Your task to perform on an android device: Clear the cart on bestbuy.com. Search for "usb-b" on bestbuy.com, select the first entry, add it to the cart, then select checkout. Image 0: 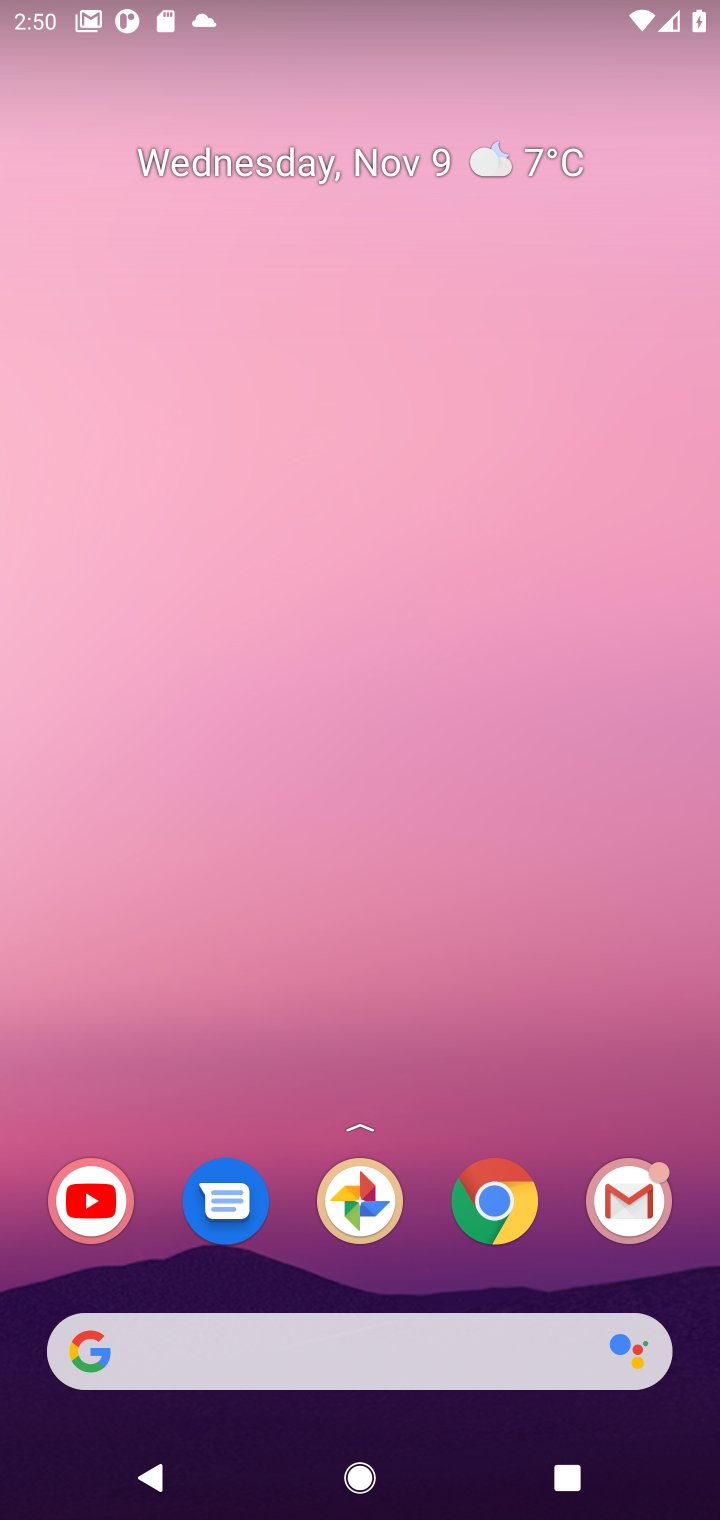
Step 0: press home button
Your task to perform on an android device: Clear the cart on bestbuy.com. Search for "usb-b" on bestbuy.com, select the first entry, add it to the cart, then select checkout. Image 1: 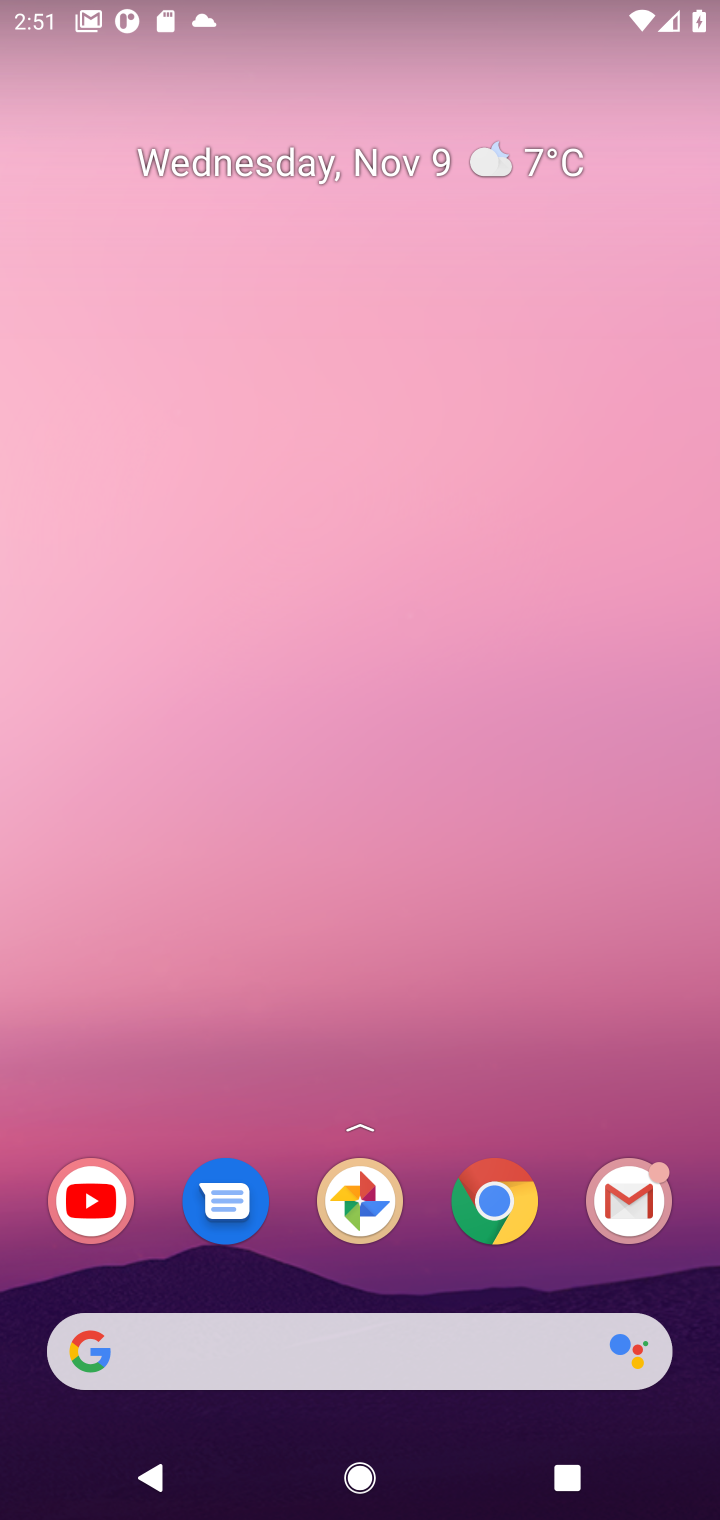
Step 1: click (322, 1327)
Your task to perform on an android device: Clear the cart on bestbuy.com. Search for "usb-b" on bestbuy.com, select the first entry, add it to the cart, then select checkout. Image 2: 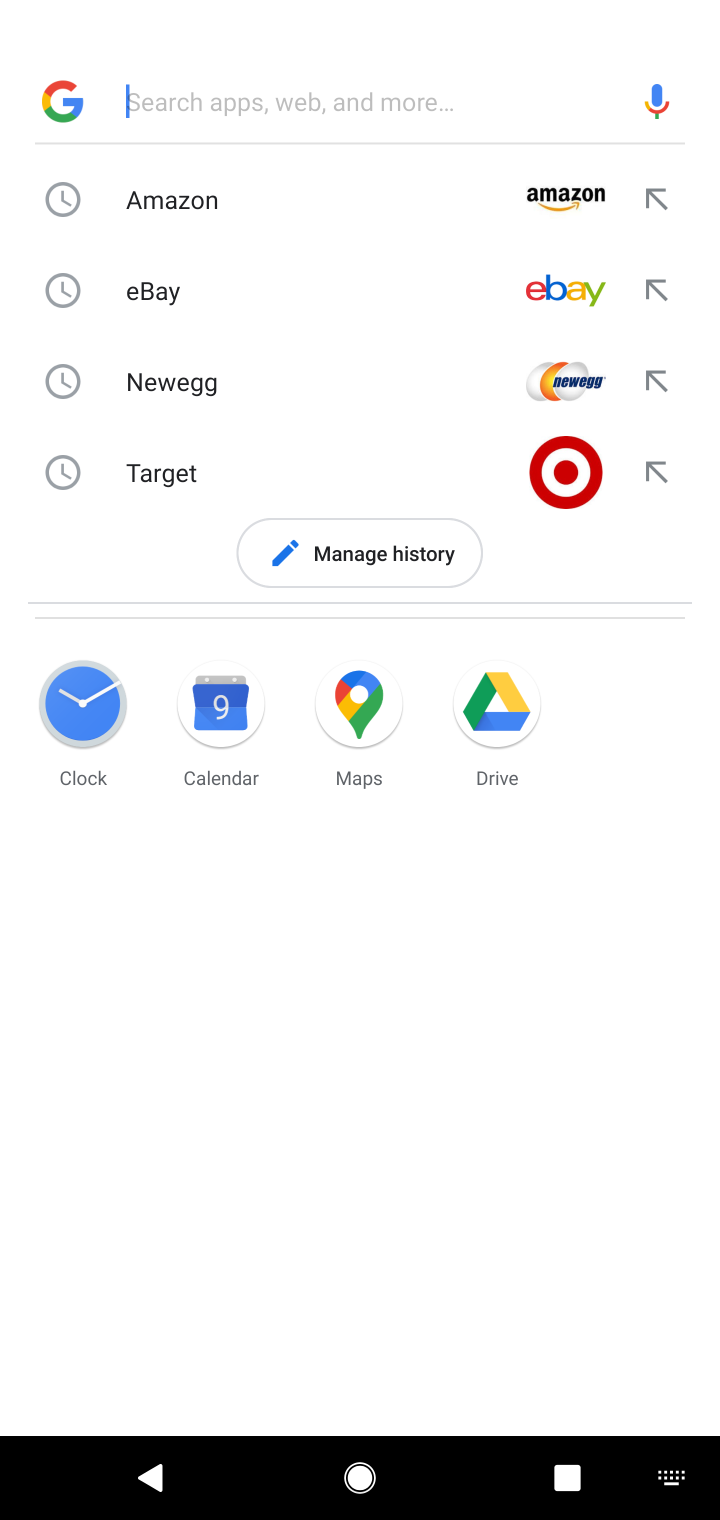
Step 2: type "bestbuy.com"
Your task to perform on an android device: Clear the cart on bestbuy.com. Search for "usb-b" on bestbuy.com, select the first entry, add it to the cart, then select checkout. Image 3: 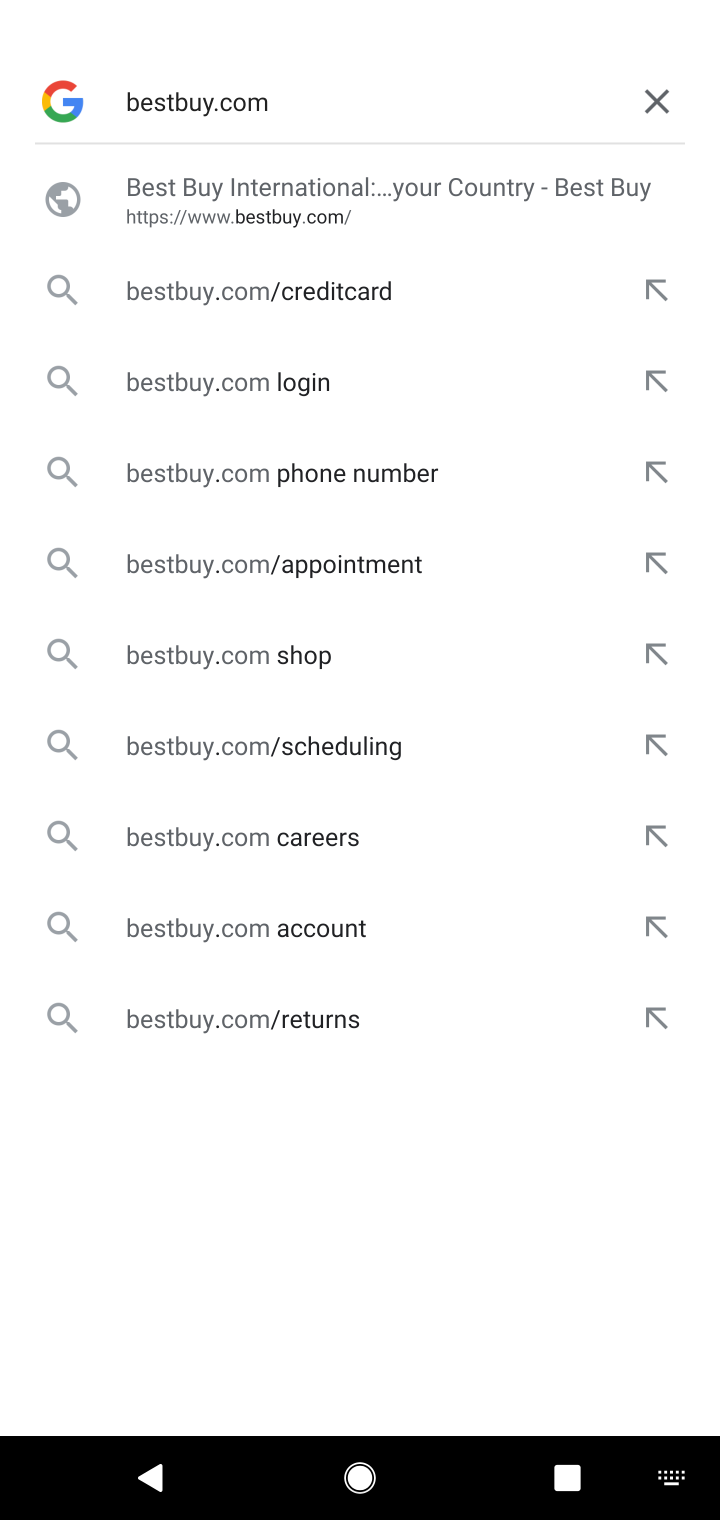
Step 3: click (295, 199)
Your task to perform on an android device: Clear the cart on bestbuy.com. Search for "usb-b" on bestbuy.com, select the first entry, add it to the cart, then select checkout. Image 4: 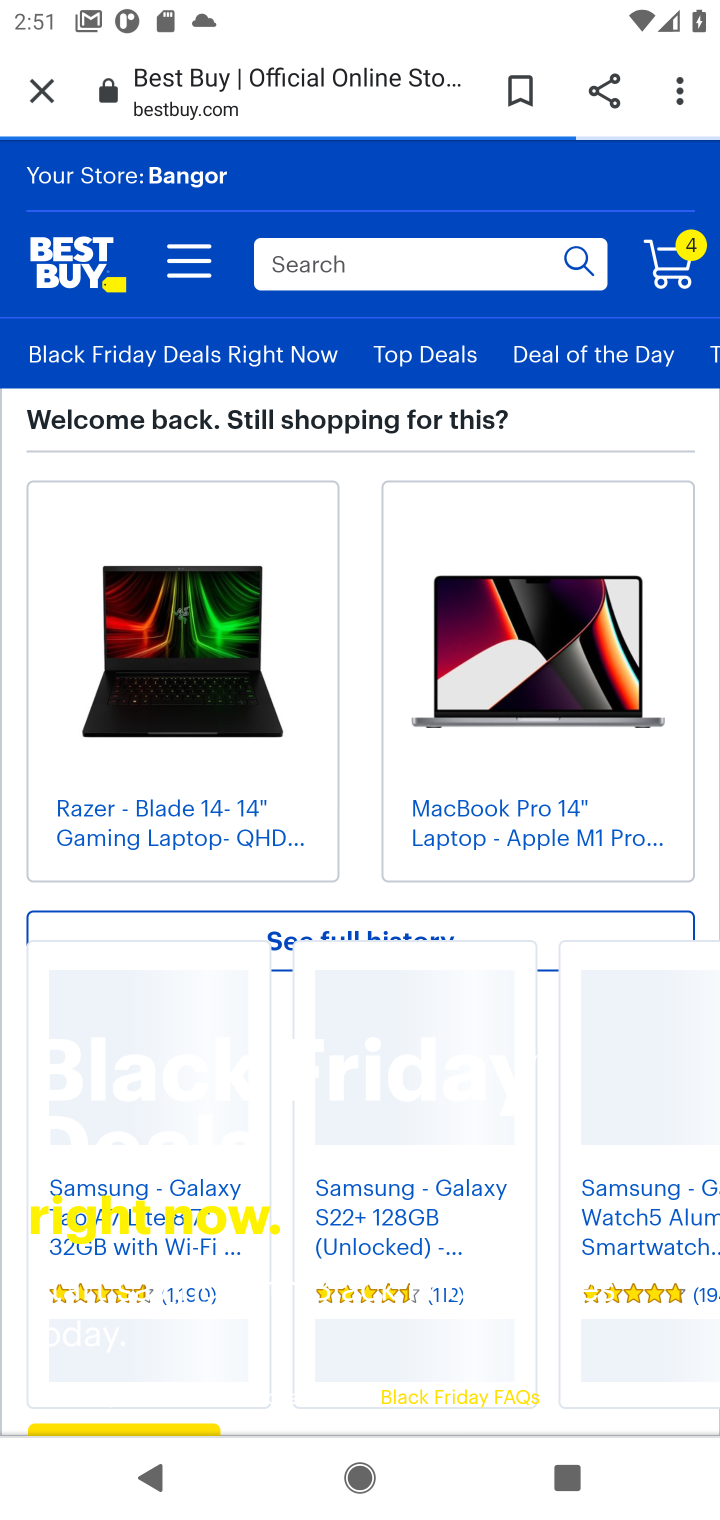
Step 4: click (351, 250)
Your task to perform on an android device: Clear the cart on bestbuy.com. Search for "usb-b" on bestbuy.com, select the first entry, add it to the cart, then select checkout. Image 5: 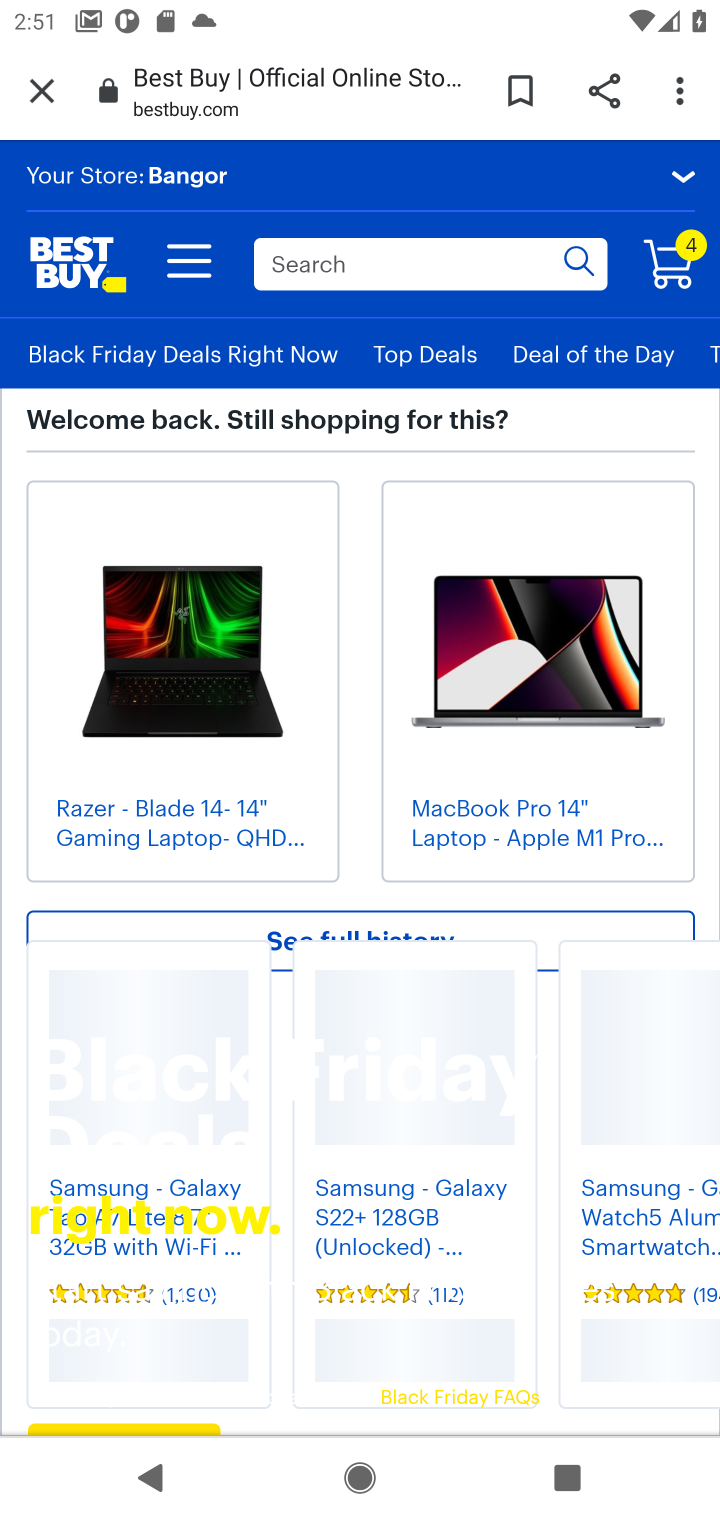
Step 5: click (336, 241)
Your task to perform on an android device: Clear the cart on bestbuy.com. Search for "usb-b" on bestbuy.com, select the first entry, add it to the cart, then select checkout. Image 6: 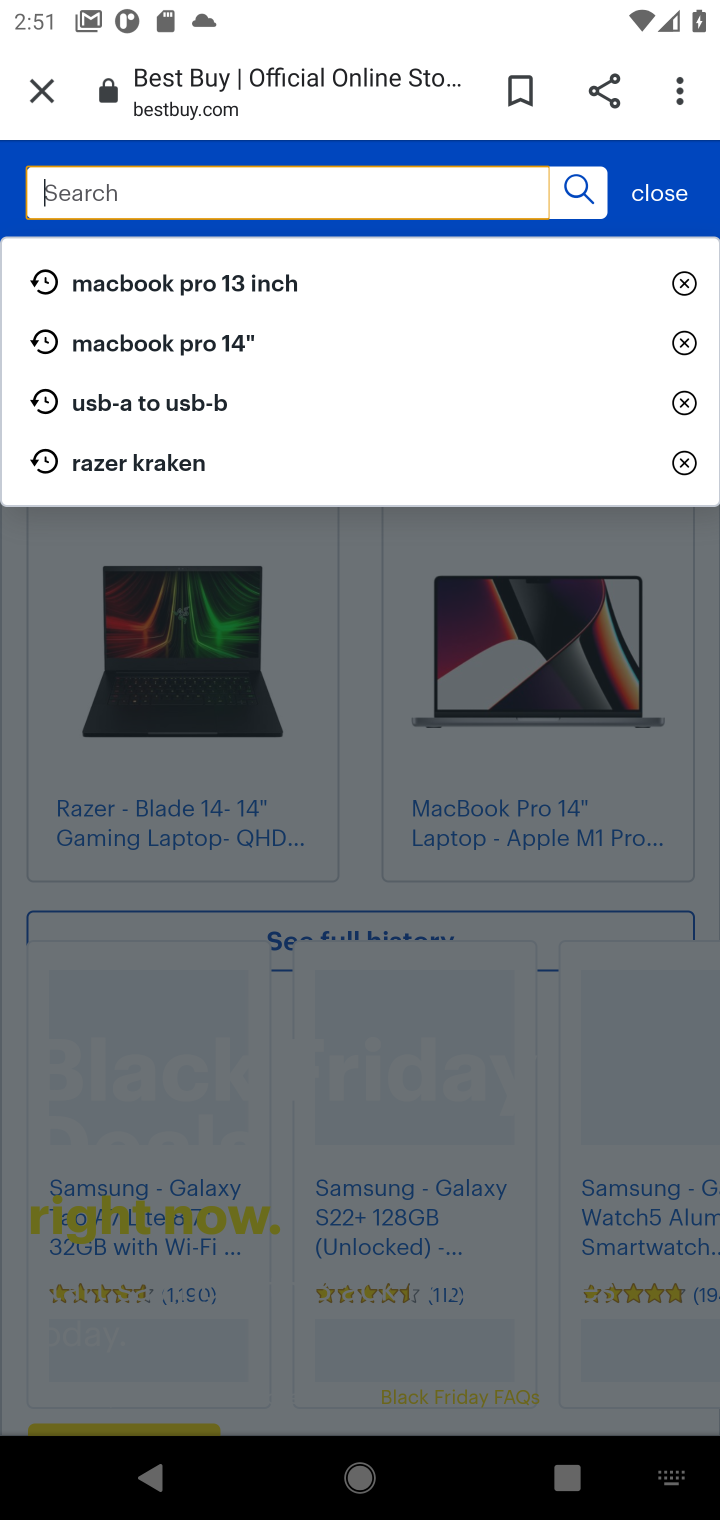
Step 6: type "usb-b"
Your task to perform on an android device: Clear the cart on bestbuy.com. Search for "usb-b" on bestbuy.com, select the first entry, add it to the cart, then select checkout. Image 7: 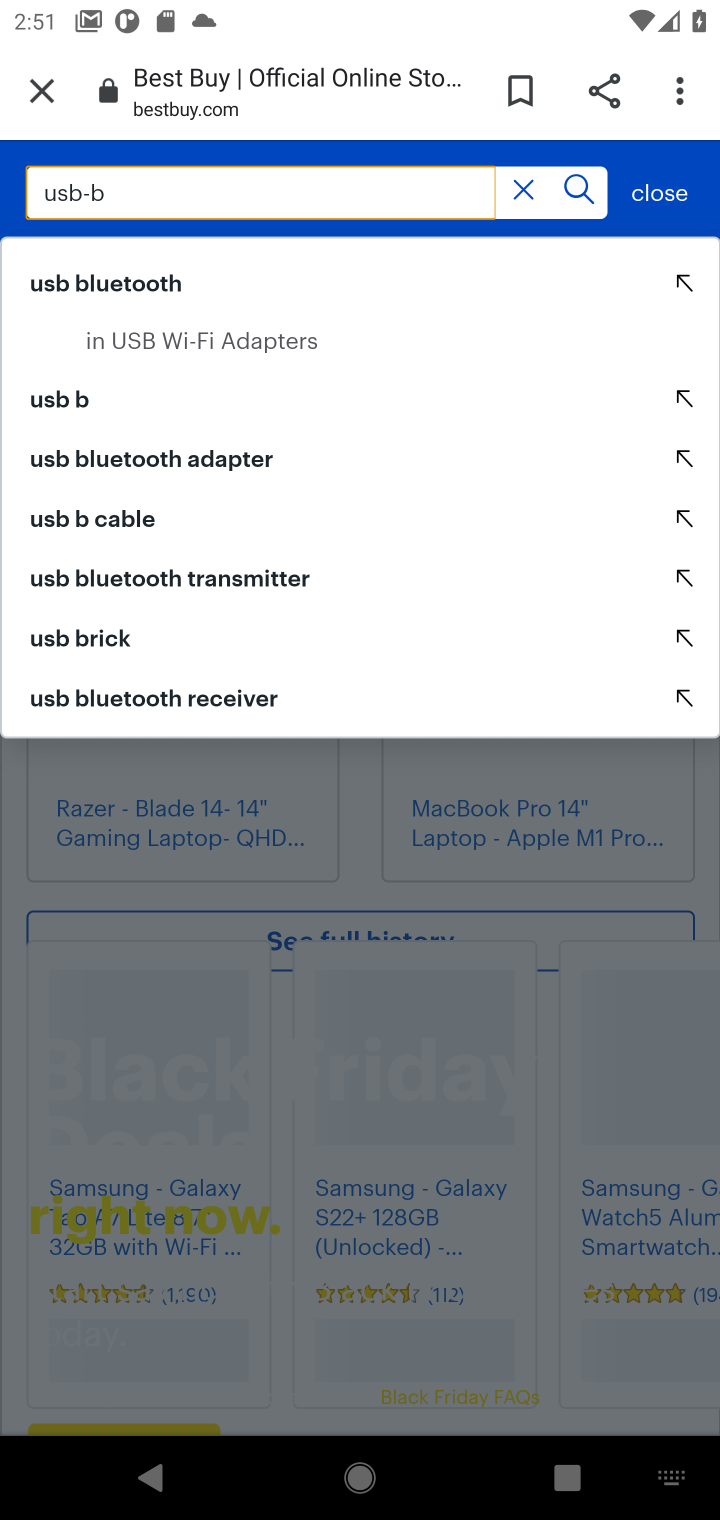
Step 7: click (83, 402)
Your task to perform on an android device: Clear the cart on bestbuy.com. Search for "usb-b" on bestbuy.com, select the first entry, add it to the cart, then select checkout. Image 8: 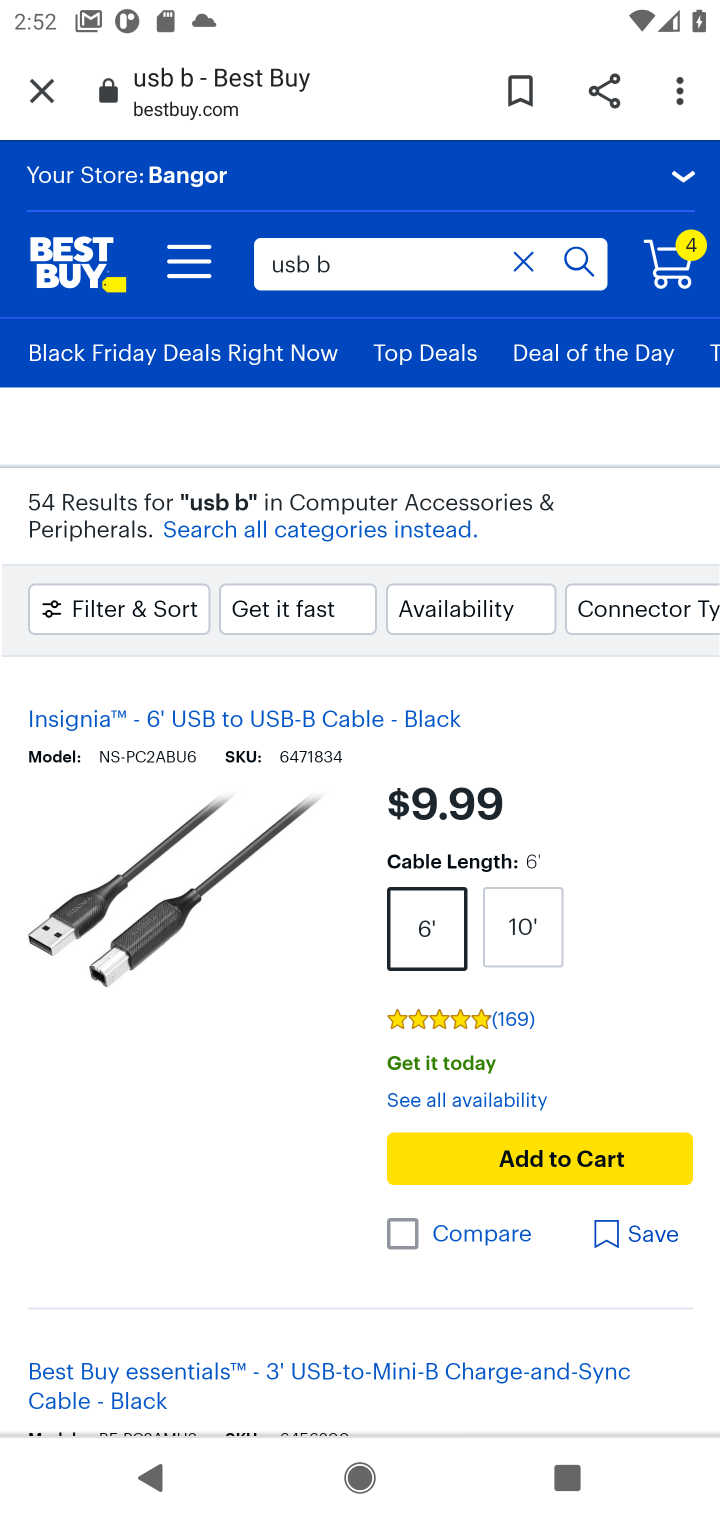
Step 8: click (190, 908)
Your task to perform on an android device: Clear the cart on bestbuy.com. Search for "usb-b" on bestbuy.com, select the first entry, add it to the cart, then select checkout. Image 9: 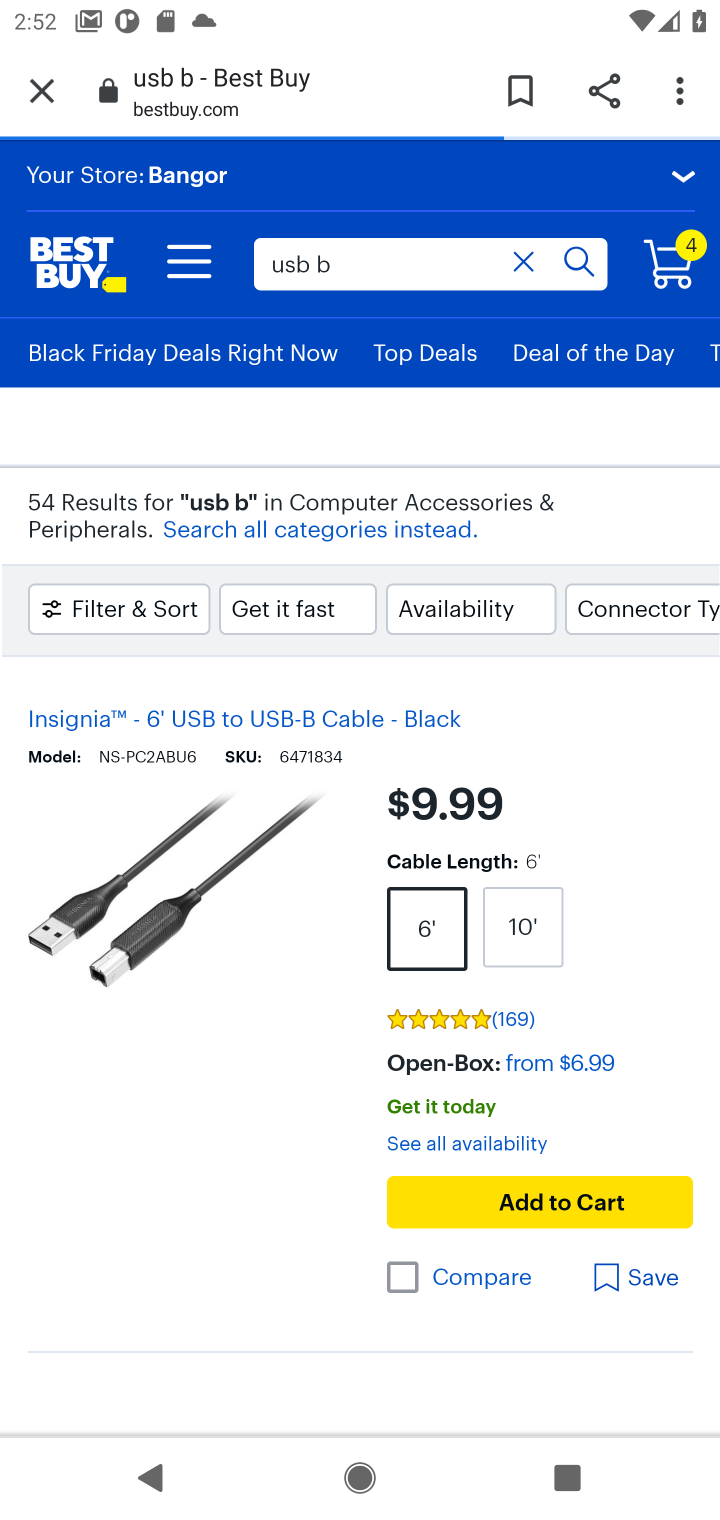
Step 9: click (552, 1159)
Your task to perform on an android device: Clear the cart on bestbuy.com. Search for "usb-b" on bestbuy.com, select the first entry, add it to the cart, then select checkout. Image 10: 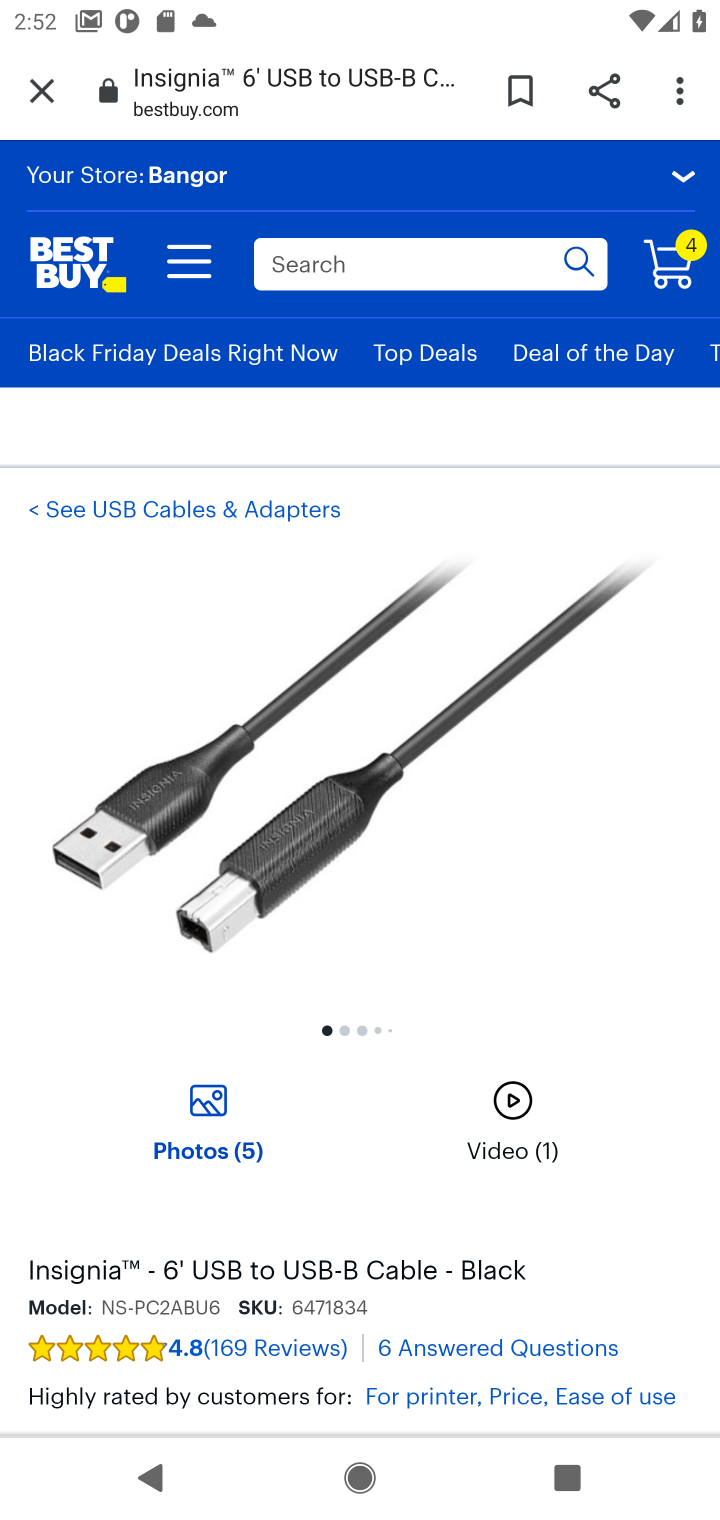
Step 10: drag from (322, 1100) to (348, 791)
Your task to perform on an android device: Clear the cart on bestbuy.com. Search for "usb-b" on bestbuy.com, select the first entry, add it to the cart, then select checkout. Image 11: 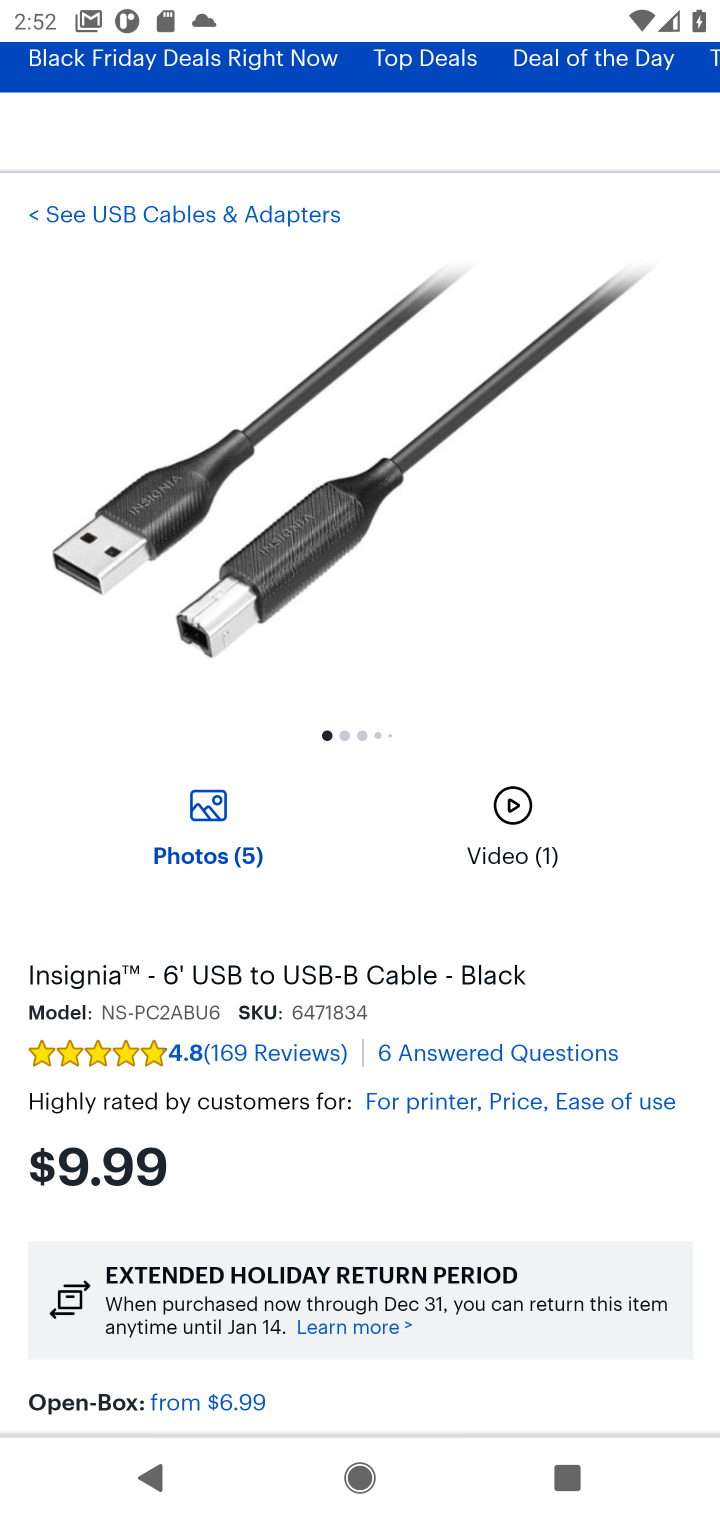
Step 11: drag from (363, 1093) to (356, 382)
Your task to perform on an android device: Clear the cart on bestbuy.com. Search for "usb-b" on bestbuy.com, select the first entry, add it to the cart, then select checkout. Image 12: 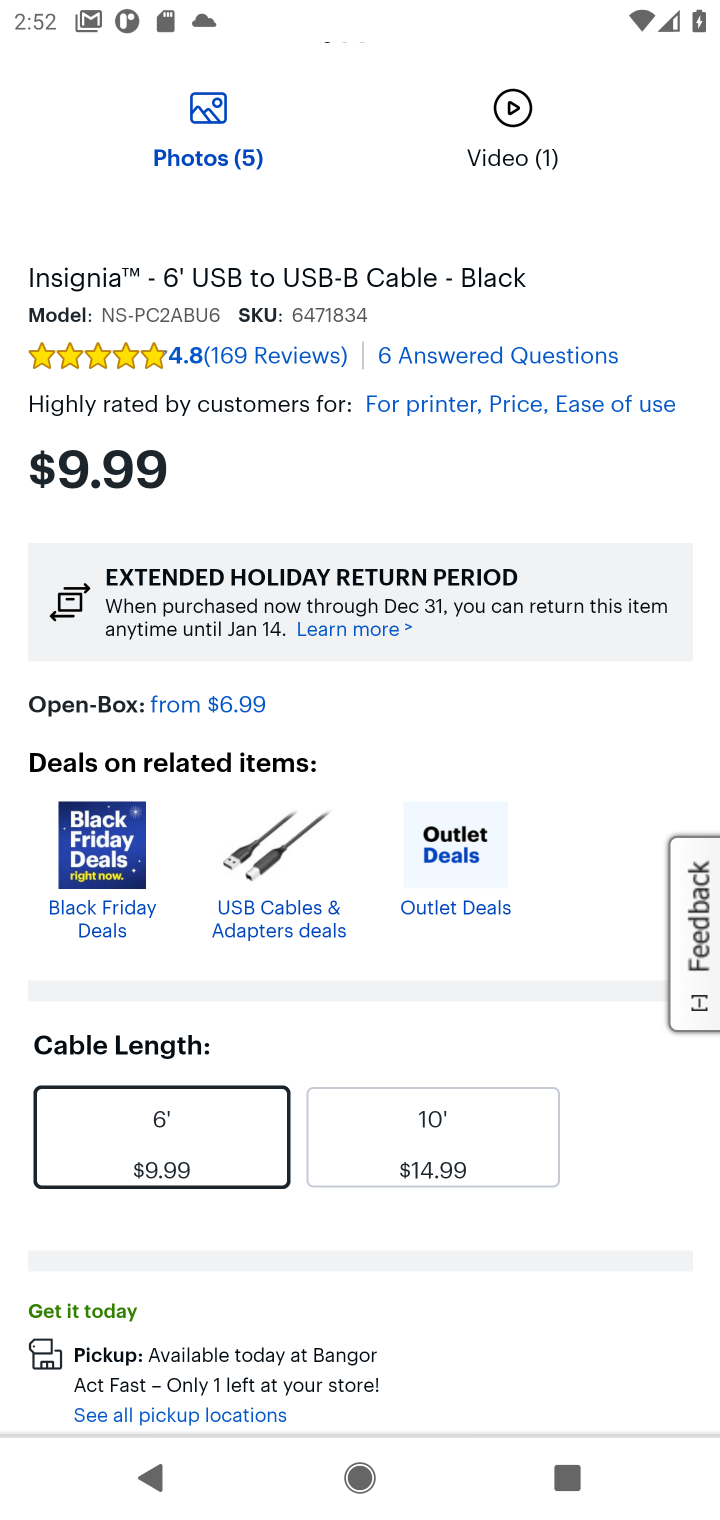
Step 12: drag from (519, 1145) to (493, 691)
Your task to perform on an android device: Clear the cart on bestbuy.com. Search for "usb-b" on bestbuy.com, select the first entry, add it to the cart, then select checkout. Image 13: 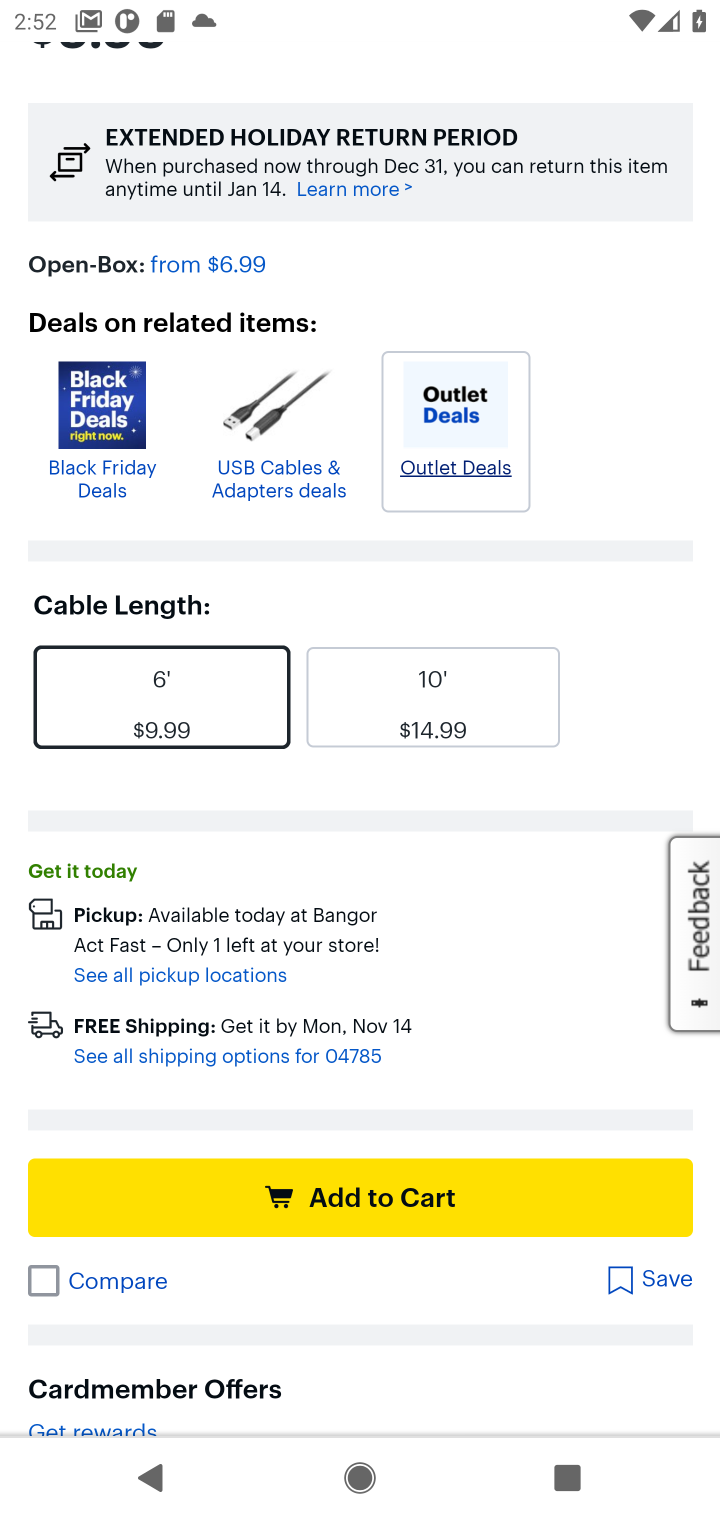
Step 13: click (347, 1189)
Your task to perform on an android device: Clear the cart on bestbuy.com. Search for "usb-b" on bestbuy.com, select the first entry, add it to the cart, then select checkout. Image 14: 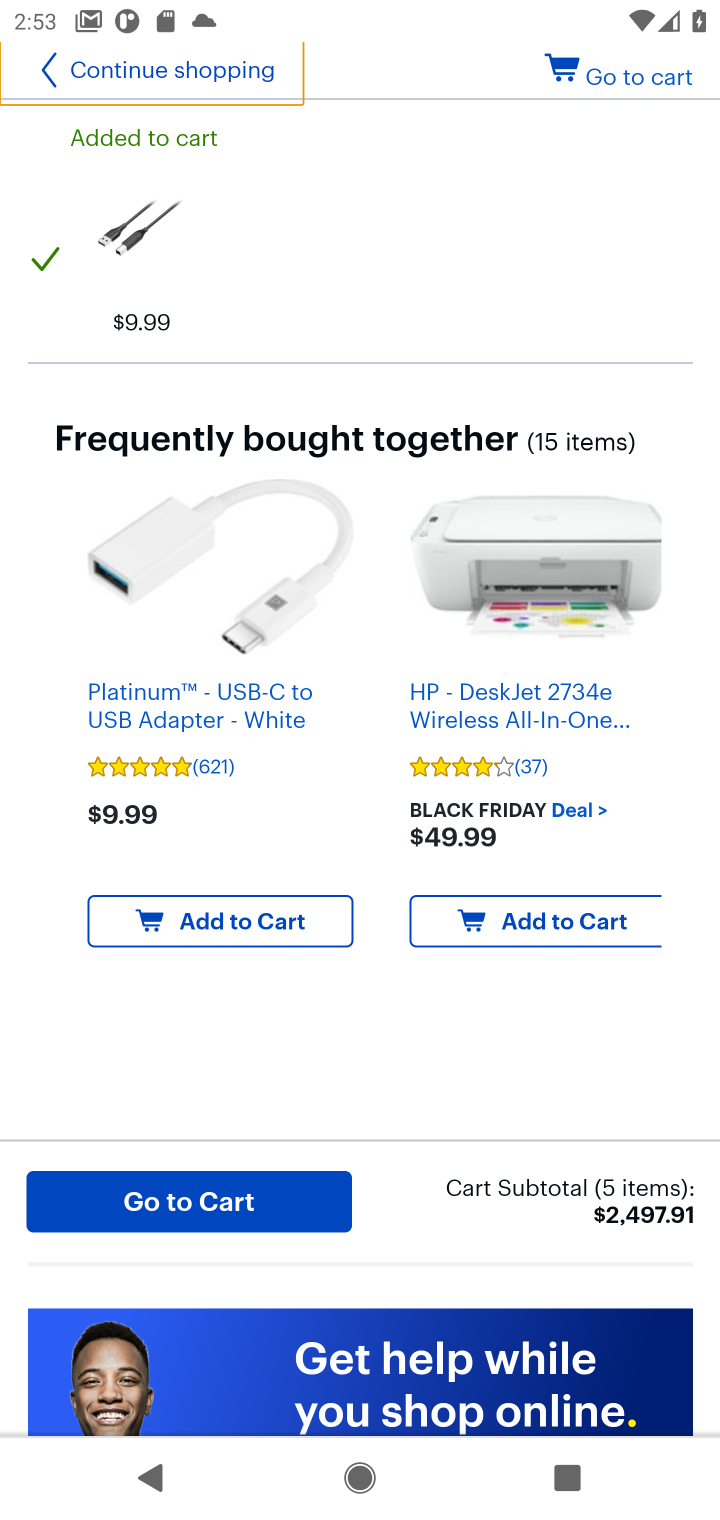
Step 14: click (167, 1211)
Your task to perform on an android device: Clear the cart on bestbuy.com. Search for "usb-b" on bestbuy.com, select the first entry, add it to the cart, then select checkout. Image 15: 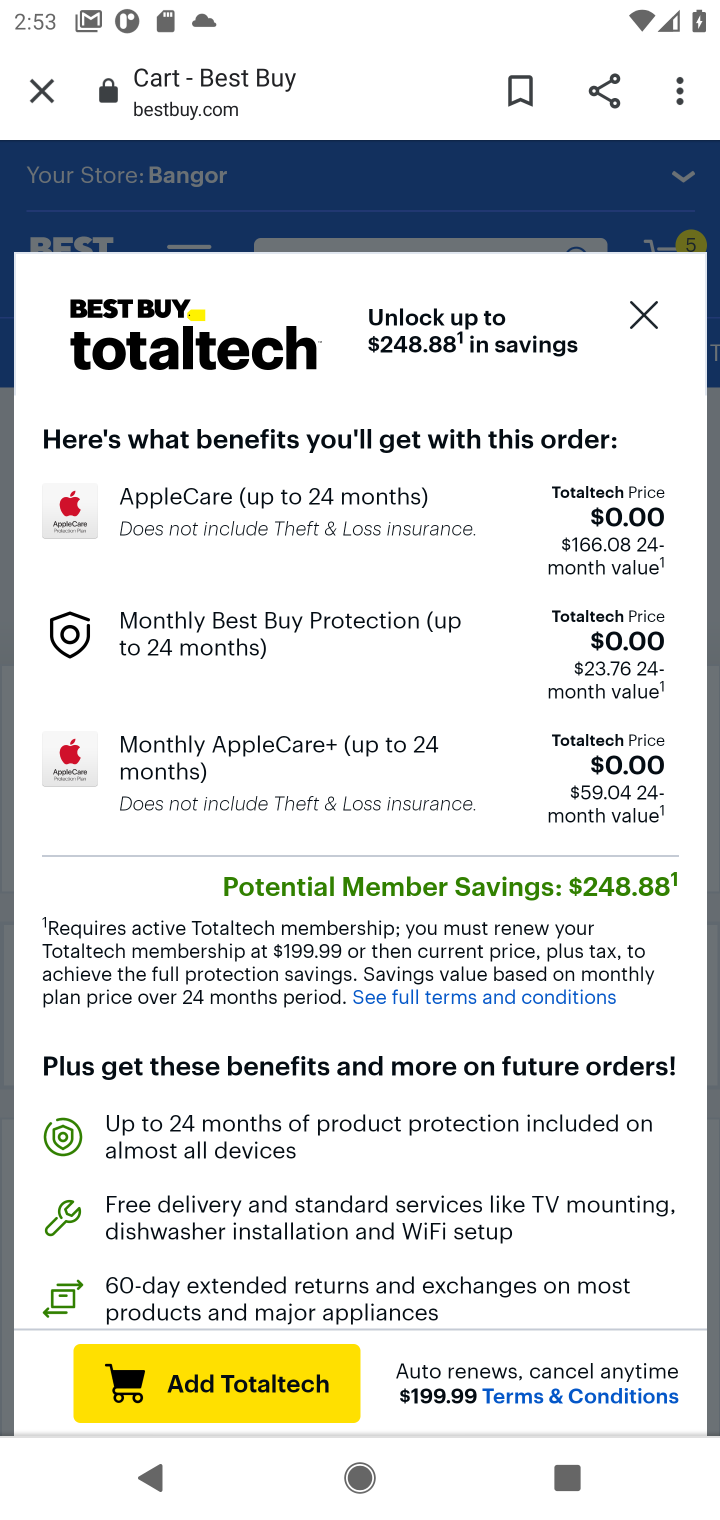
Step 15: click (640, 307)
Your task to perform on an android device: Clear the cart on bestbuy.com. Search for "usb-b" on bestbuy.com, select the first entry, add it to the cart, then select checkout. Image 16: 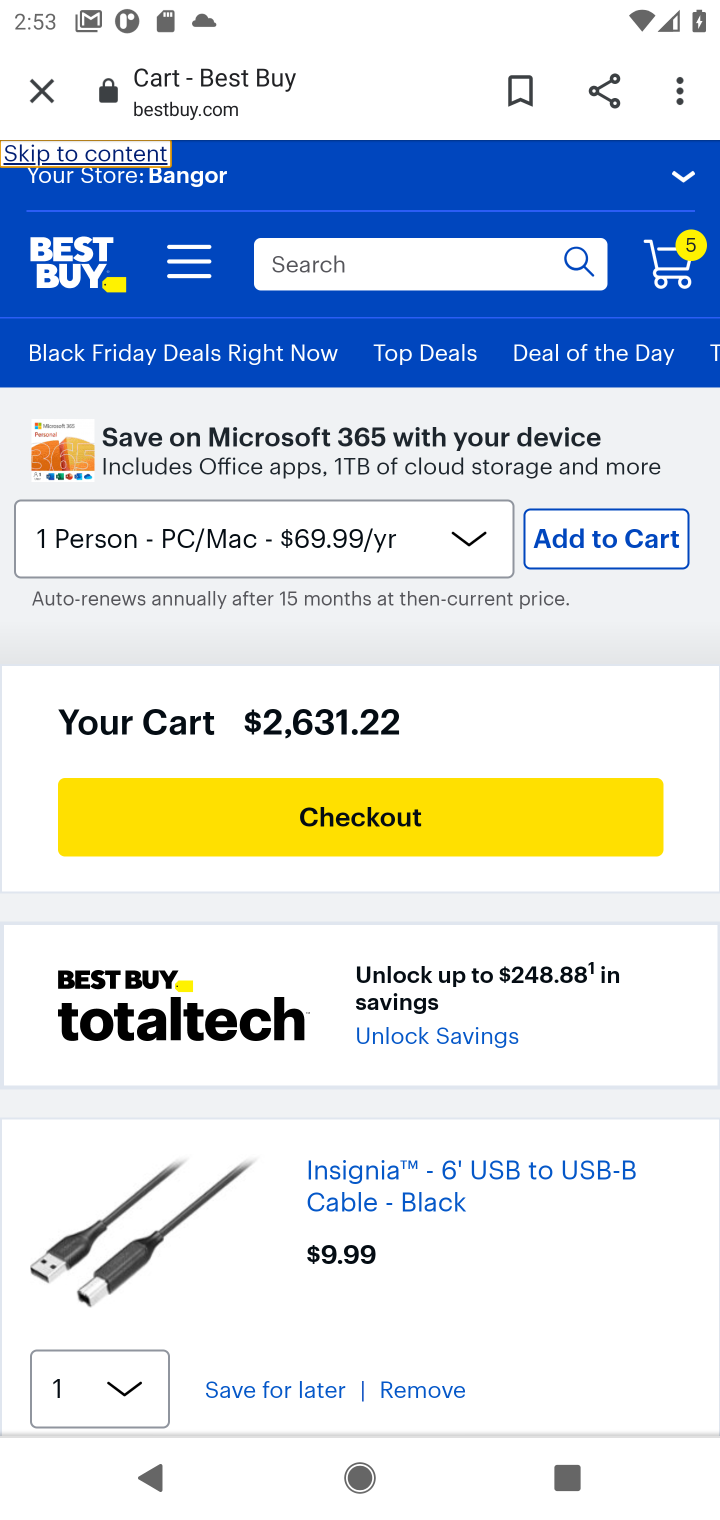
Step 16: click (370, 823)
Your task to perform on an android device: Clear the cart on bestbuy.com. Search for "usb-b" on bestbuy.com, select the first entry, add it to the cart, then select checkout. Image 17: 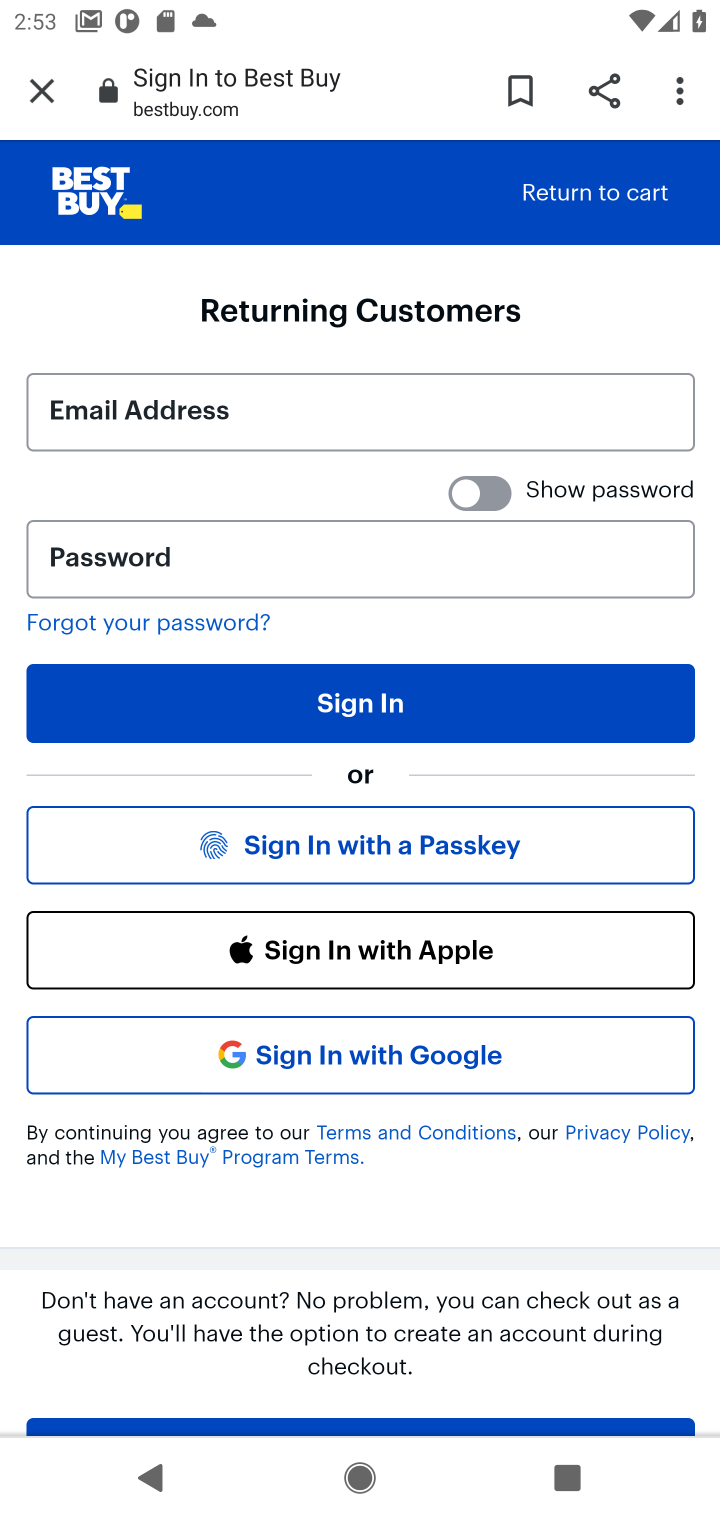
Step 17: task complete